Your task to perform on an android device: turn on notifications settings in the gmail app Image 0: 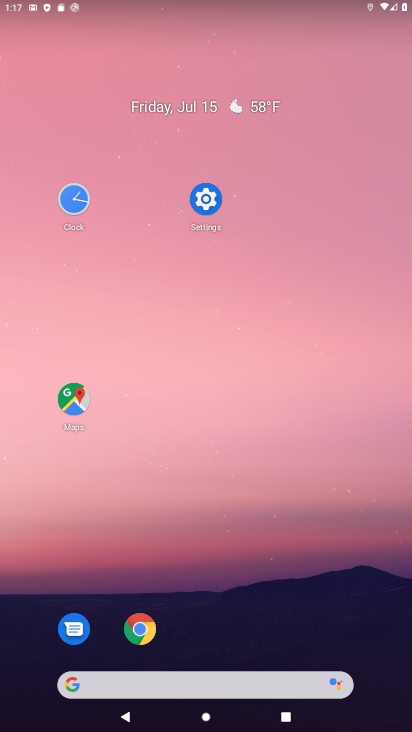
Step 0: click (216, 206)
Your task to perform on an android device: turn on notifications settings in the gmail app Image 1: 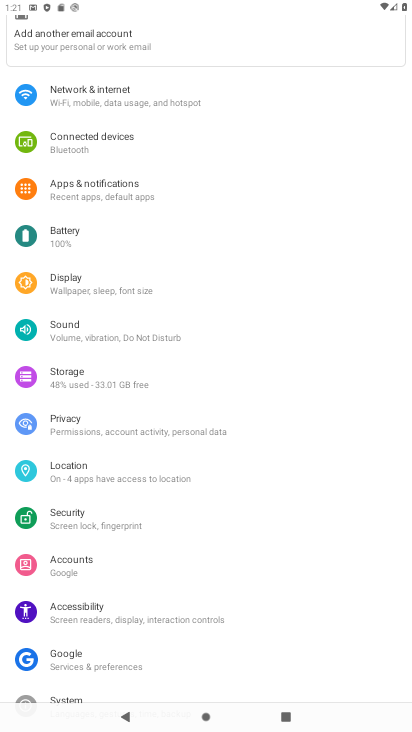
Step 1: press home button
Your task to perform on an android device: turn on notifications settings in the gmail app Image 2: 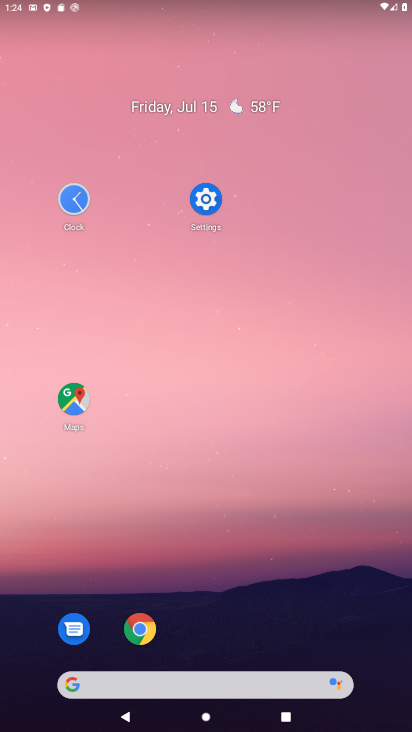
Step 2: drag from (255, 607) to (300, 197)
Your task to perform on an android device: turn on notifications settings in the gmail app Image 3: 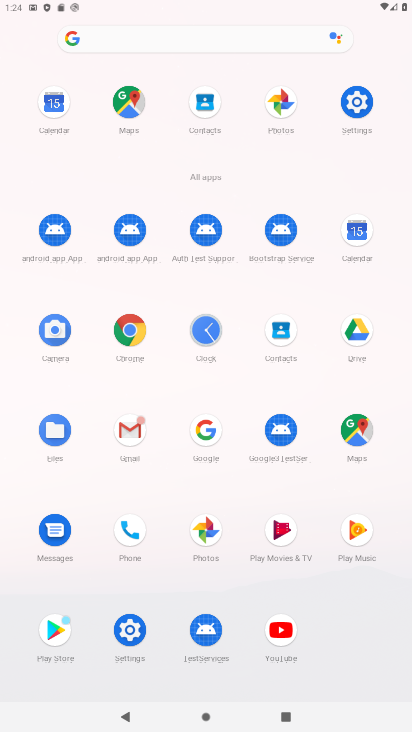
Step 3: drag from (132, 428) to (135, 240)
Your task to perform on an android device: turn on notifications settings in the gmail app Image 4: 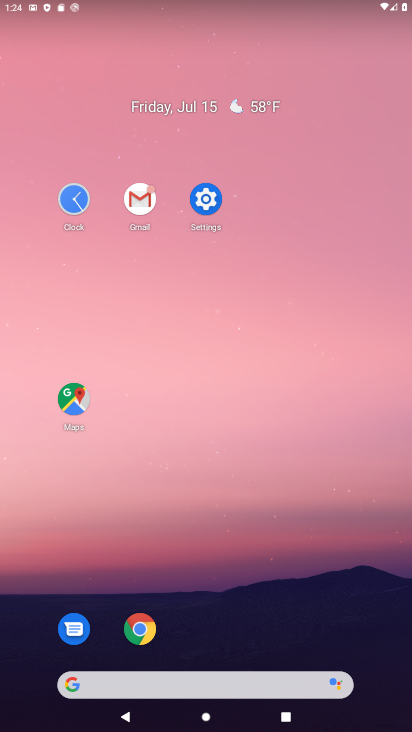
Step 4: click (149, 208)
Your task to perform on an android device: turn on notifications settings in the gmail app Image 5: 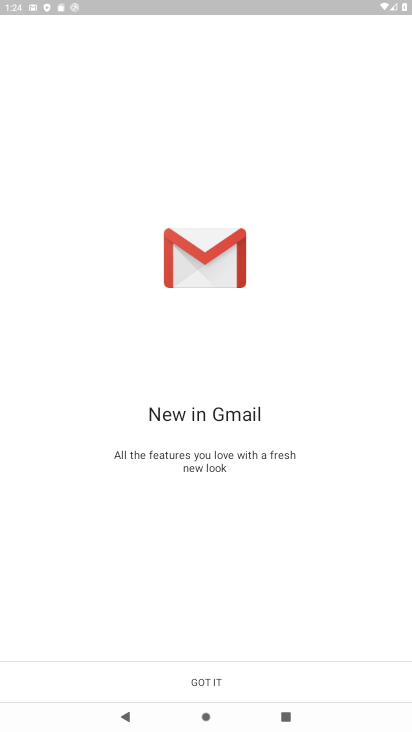
Step 5: click (268, 686)
Your task to perform on an android device: turn on notifications settings in the gmail app Image 6: 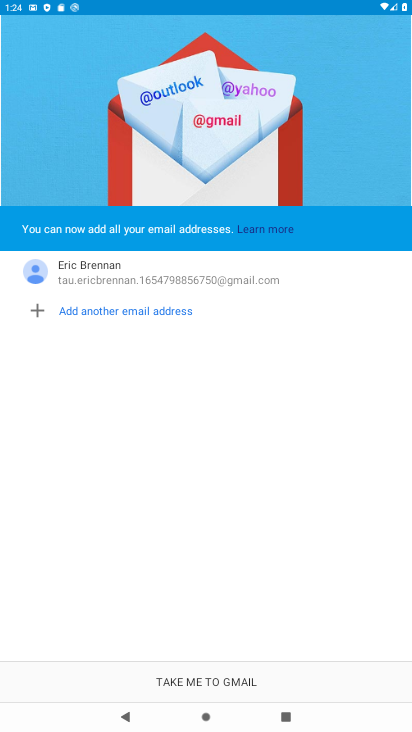
Step 6: click (268, 686)
Your task to perform on an android device: turn on notifications settings in the gmail app Image 7: 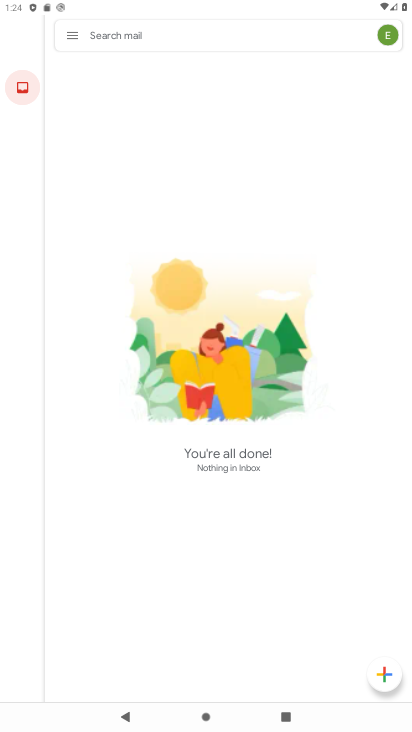
Step 7: click (74, 43)
Your task to perform on an android device: turn on notifications settings in the gmail app Image 8: 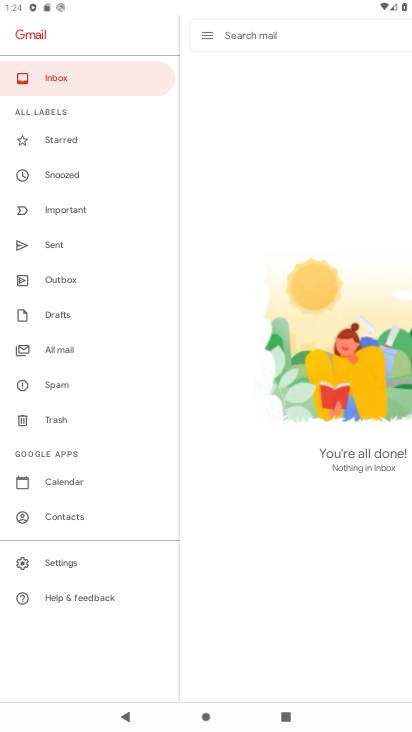
Step 8: click (92, 554)
Your task to perform on an android device: turn on notifications settings in the gmail app Image 9: 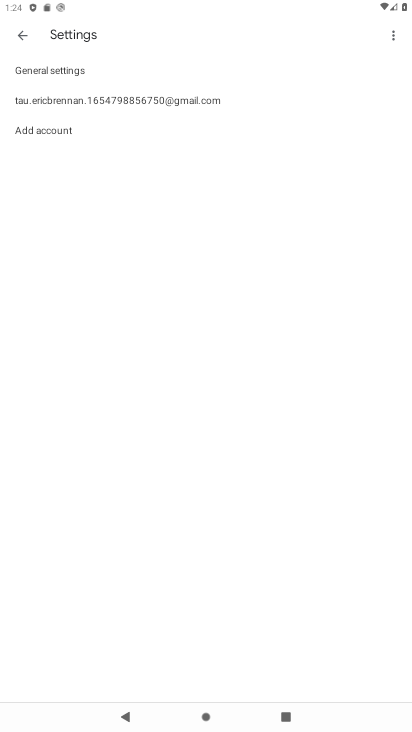
Step 9: click (119, 104)
Your task to perform on an android device: turn on notifications settings in the gmail app Image 10: 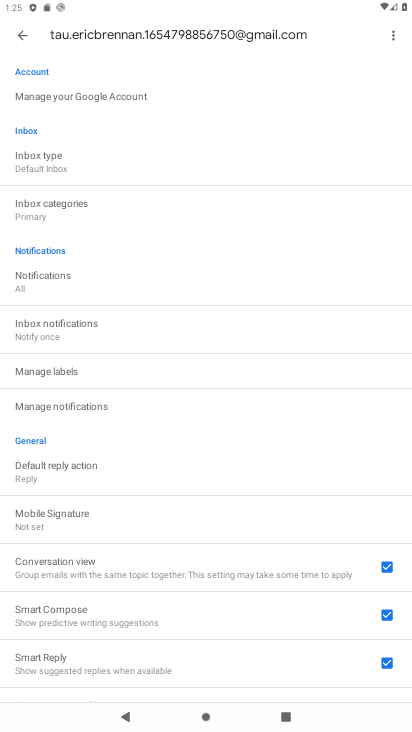
Step 10: click (119, 280)
Your task to perform on an android device: turn on notifications settings in the gmail app Image 11: 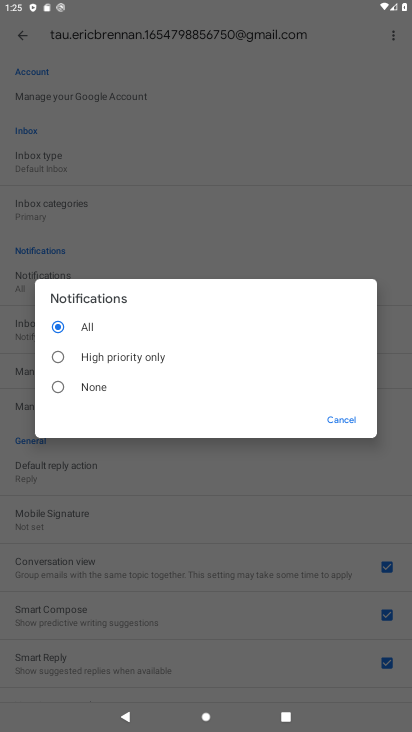
Step 11: task complete